Your task to perform on an android device: What's the weather? Image 0: 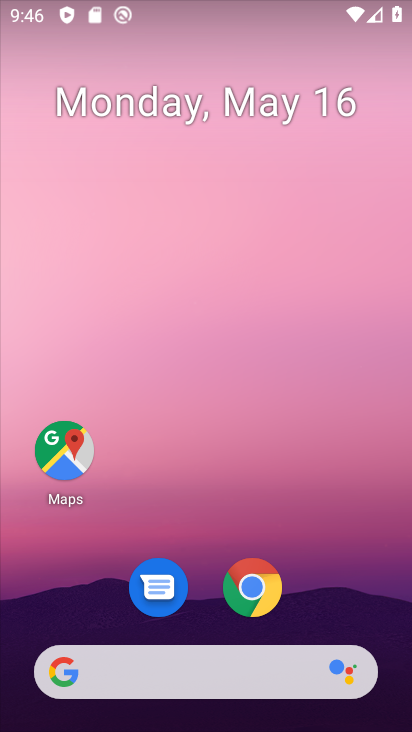
Step 0: click (234, 706)
Your task to perform on an android device: What's the weather? Image 1: 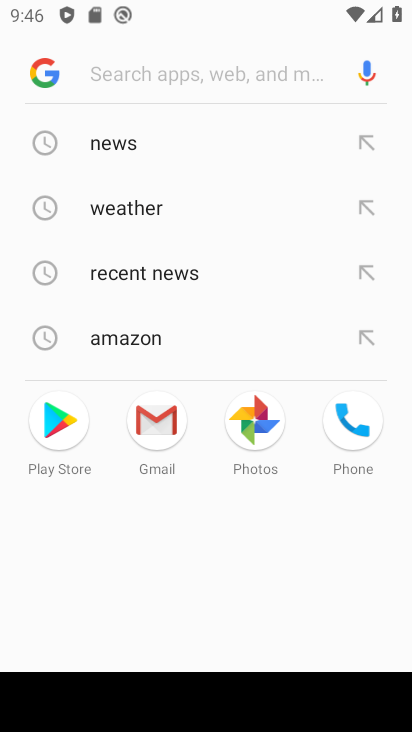
Step 1: click (124, 203)
Your task to perform on an android device: What's the weather? Image 2: 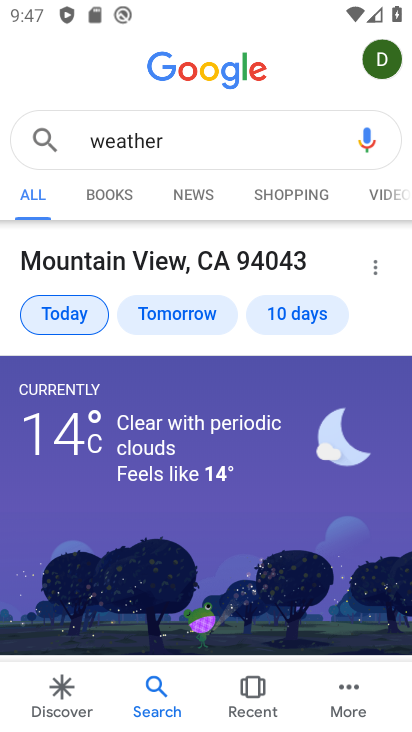
Step 2: task complete